Your task to perform on an android device: check storage Image 0: 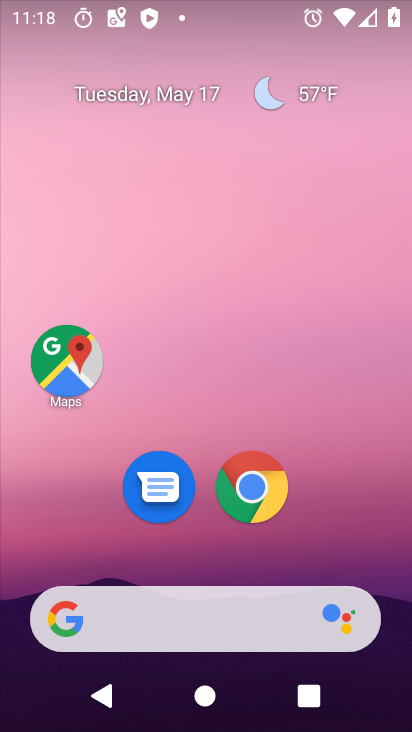
Step 0: drag from (217, 710) to (219, 82)
Your task to perform on an android device: check storage Image 1: 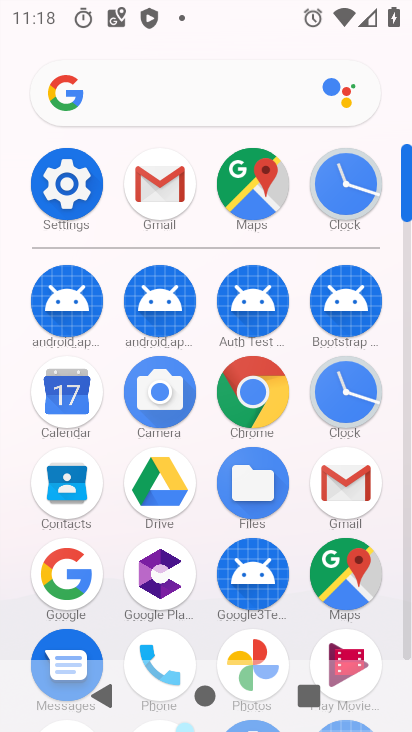
Step 1: click (60, 173)
Your task to perform on an android device: check storage Image 2: 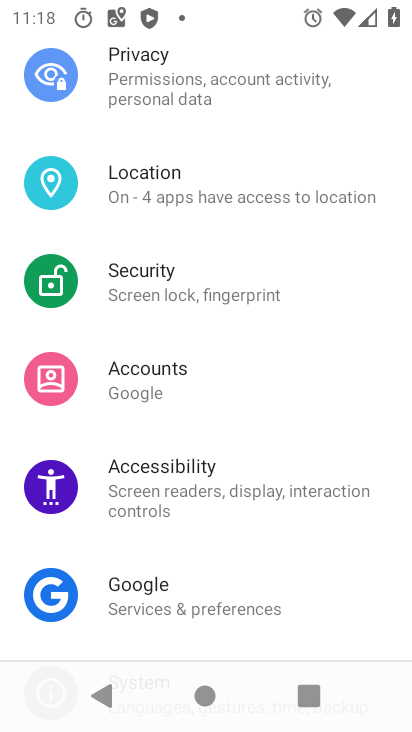
Step 2: drag from (206, 127) to (217, 489)
Your task to perform on an android device: check storage Image 3: 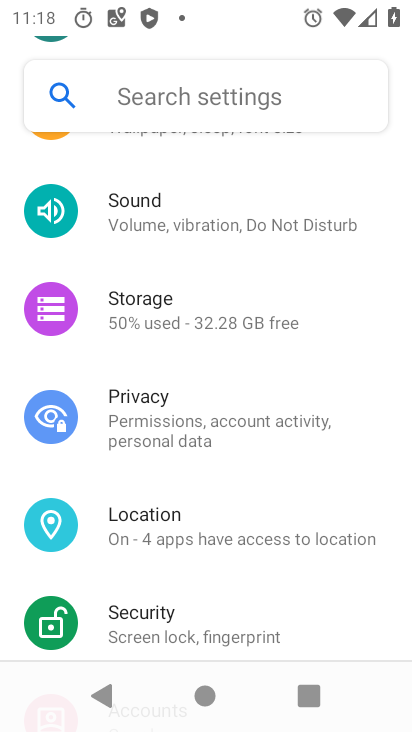
Step 3: click (154, 307)
Your task to perform on an android device: check storage Image 4: 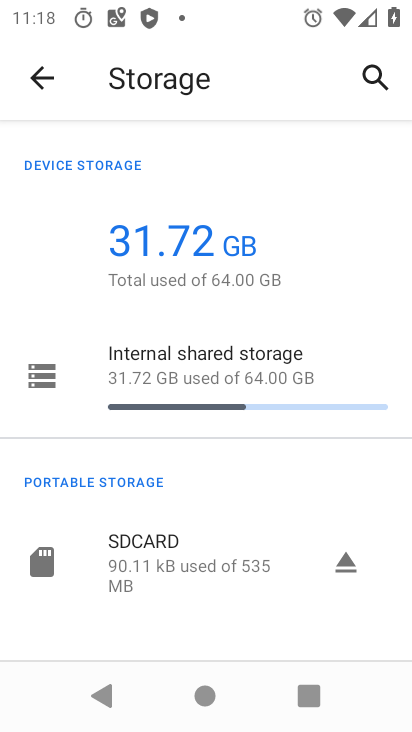
Step 4: task complete